Your task to perform on an android device: move a message to another label in the gmail app Image 0: 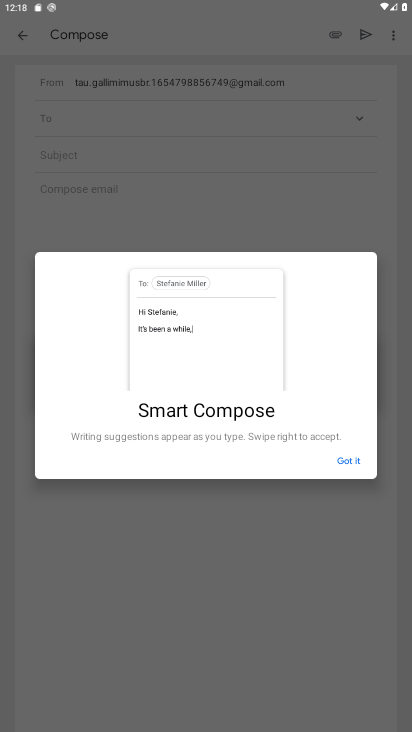
Step 0: press home button
Your task to perform on an android device: move a message to another label in the gmail app Image 1: 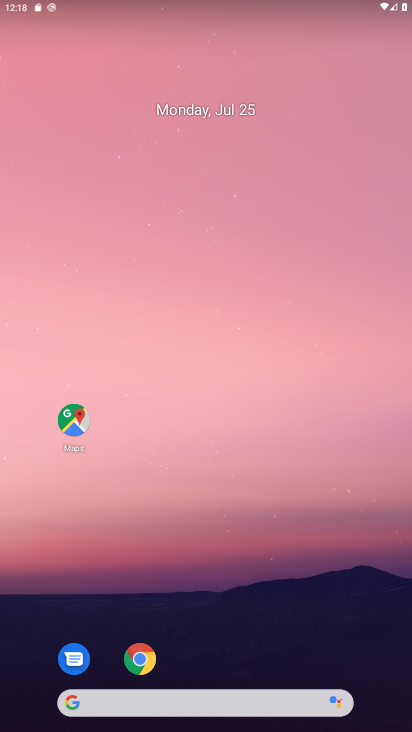
Step 1: drag from (215, 677) to (189, 31)
Your task to perform on an android device: move a message to another label in the gmail app Image 2: 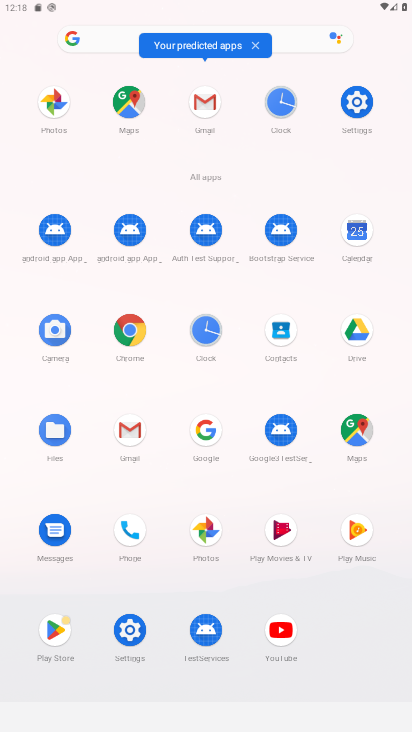
Step 2: click (204, 98)
Your task to perform on an android device: move a message to another label in the gmail app Image 3: 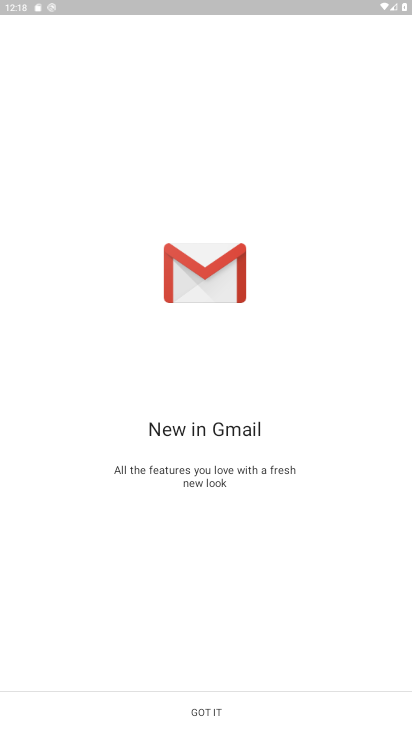
Step 3: click (227, 713)
Your task to perform on an android device: move a message to another label in the gmail app Image 4: 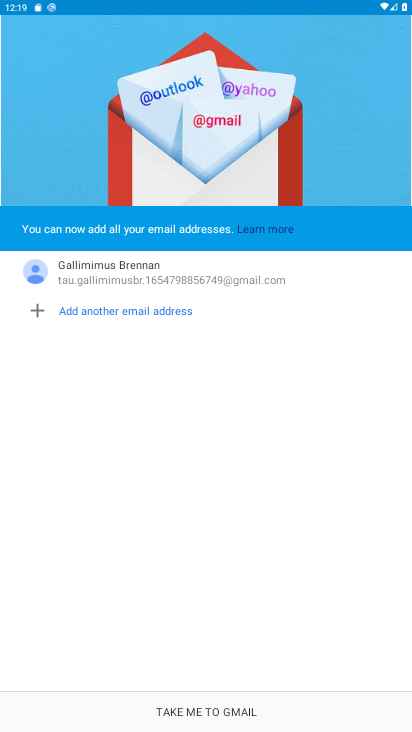
Step 4: click (215, 713)
Your task to perform on an android device: move a message to another label in the gmail app Image 5: 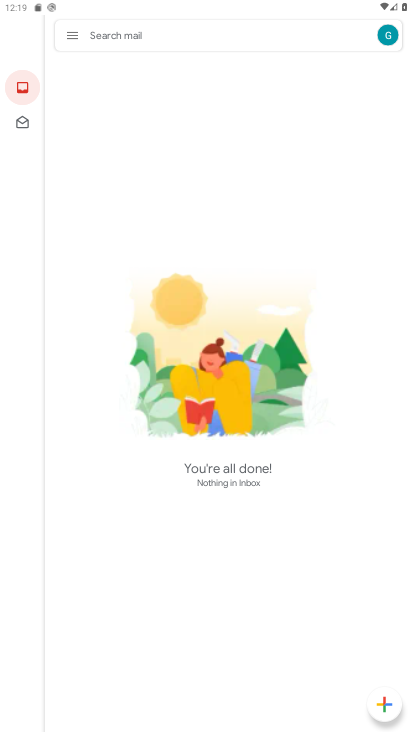
Step 5: click (72, 35)
Your task to perform on an android device: move a message to another label in the gmail app Image 6: 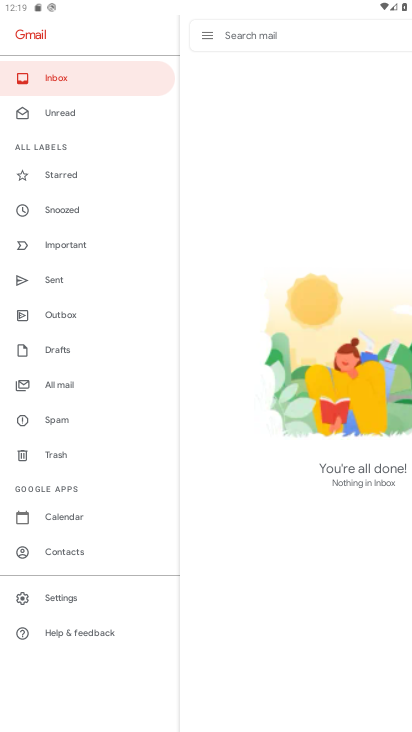
Step 6: click (68, 80)
Your task to perform on an android device: move a message to another label in the gmail app Image 7: 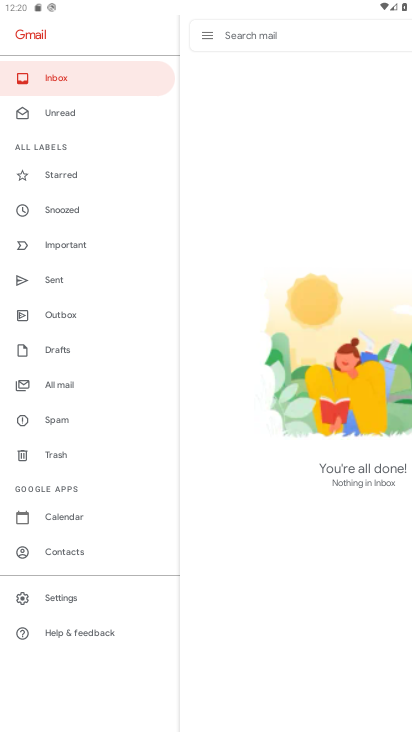
Step 7: click (207, 34)
Your task to perform on an android device: move a message to another label in the gmail app Image 8: 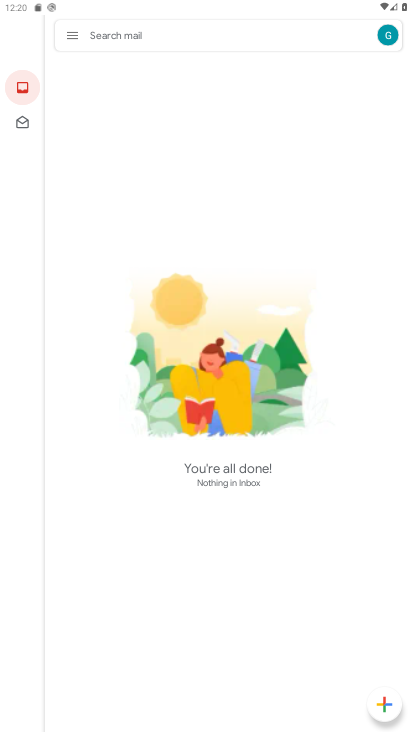
Step 8: click (17, 122)
Your task to perform on an android device: move a message to another label in the gmail app Image 9: 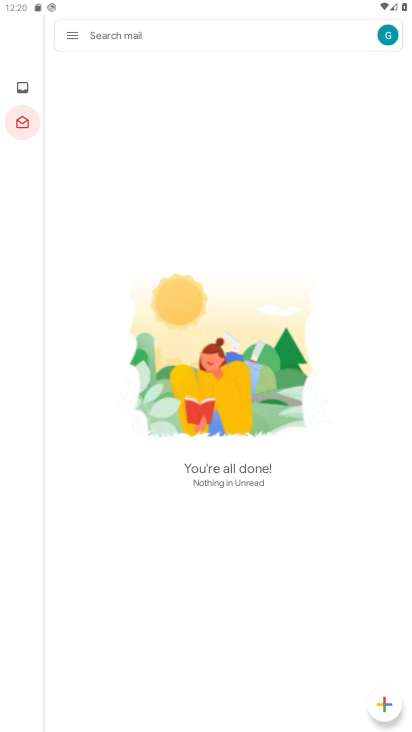
Step 9: click (20, 83)
Your task to perform on an android device: move a message to another label in the gmail app Image 10: 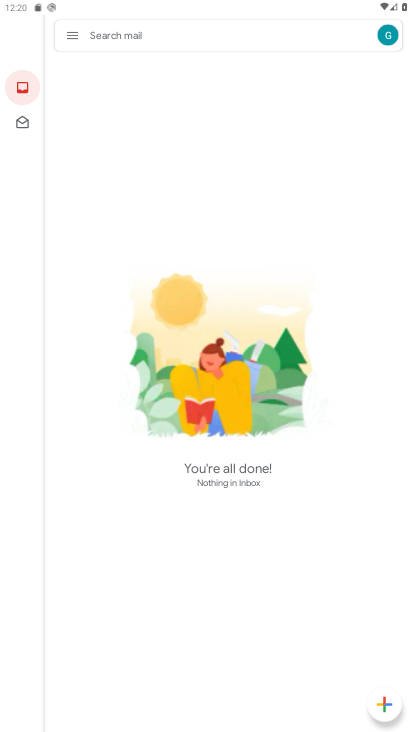
Step 10: task complete